Your task to perform on an android device: See recent photos Image 0: 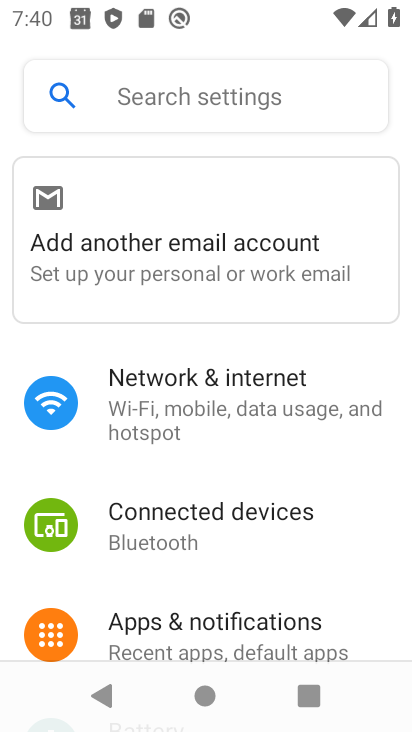
Step 0: press home button
Your task to perform on an android device: See recent photos Image 1: 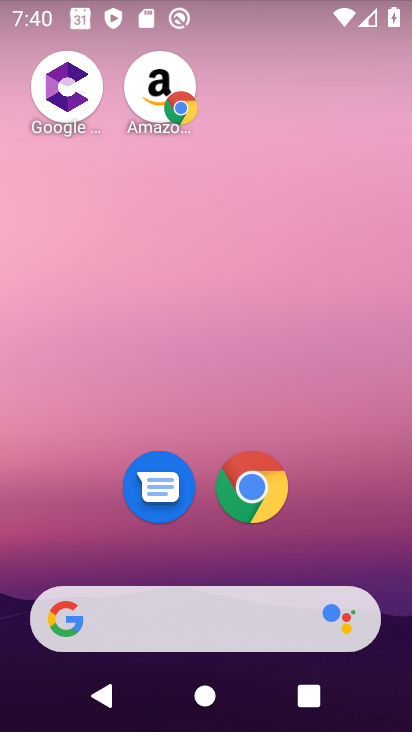
Step 1: drag from (214, 651) to (370, 15)
Your task to perform on an android device: See recent photos Image 2: 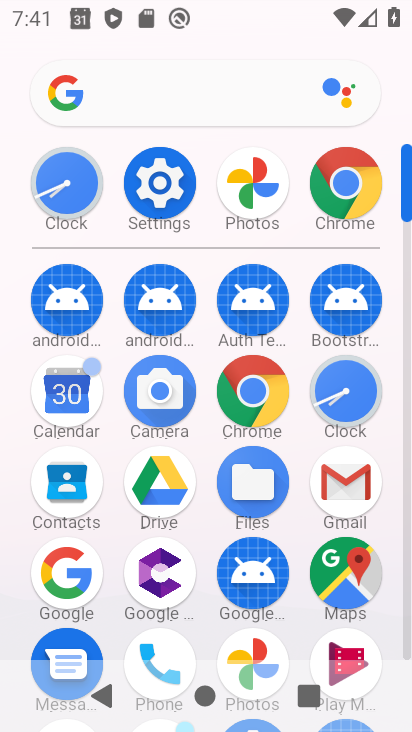
Step 2: click (242, 637)
Your task to perform on an android device: See recent photos Image 3: 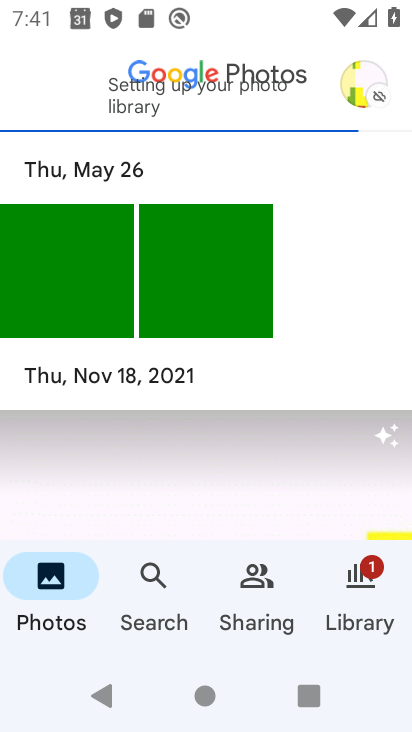
Step 3: task complete